Your task to perform on an android device: turn on bluetooth scan Image 0: 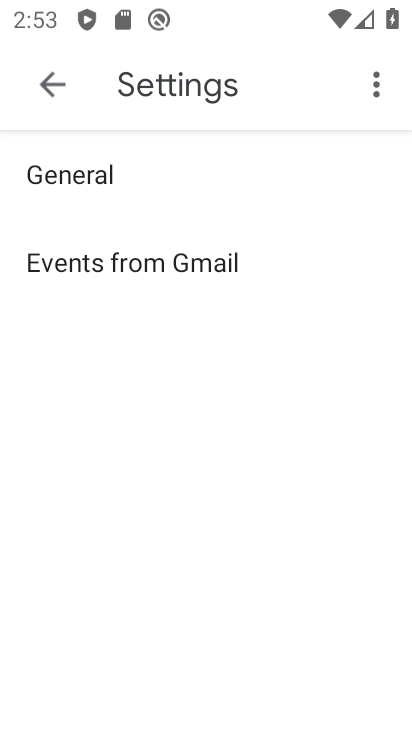
Step 0: press home button
Your task to perform on an android device: turn on bluetooth scan Image 1: 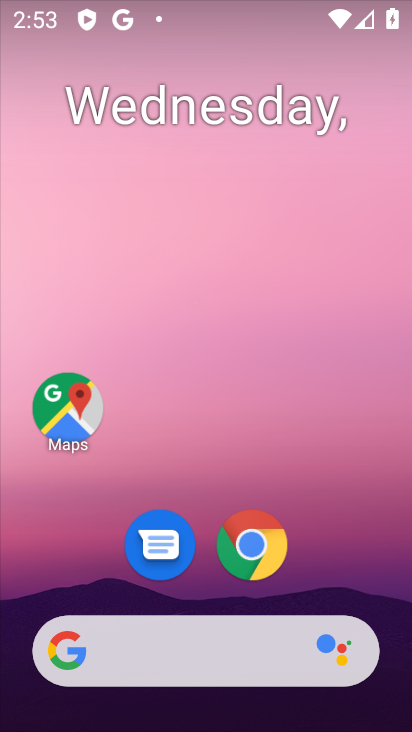
Step 1: drag from (120, 385) to (169, 150)
Your task to perform on an android device: turn on bluetooth scan Image 2: 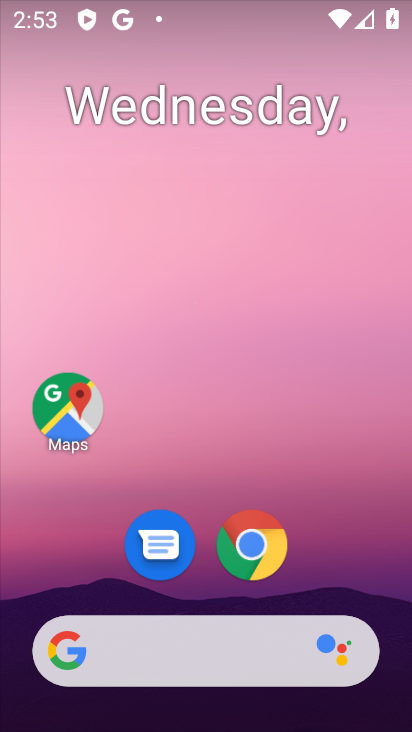
Step 2: drag from (101, 545) to (199, 17)
Your task to perform on an android device: turn on bluetooth scan Image 3: 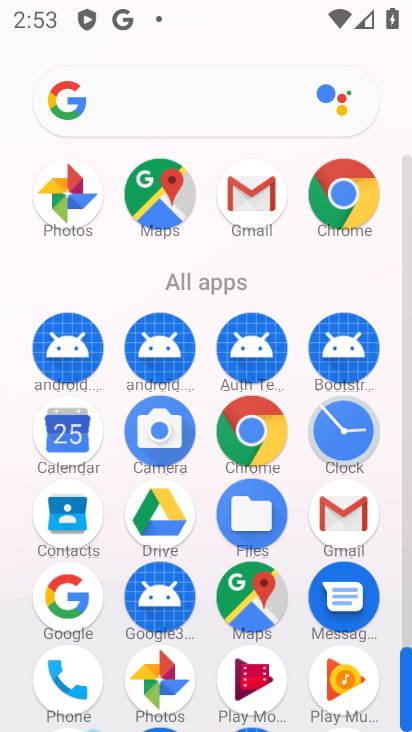
Step 3: drag from (171, 583) to (210, 362)
Your task to perform on an android device: turn on bluetooth scan Image 4: 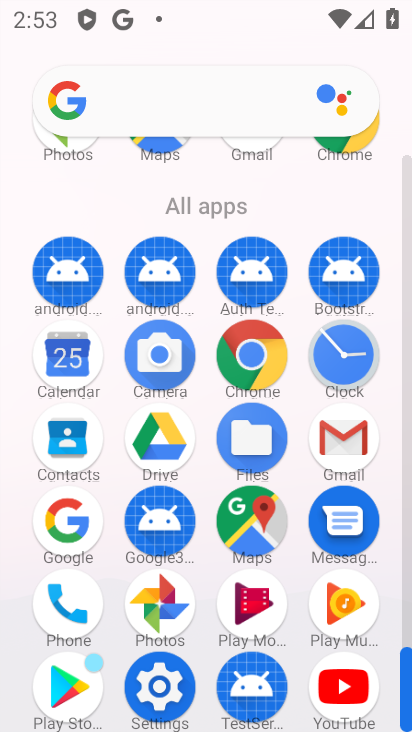
Step 4: click (136, 696)
Your task to perform on an android device: turn on bluetooth scan Image 5: 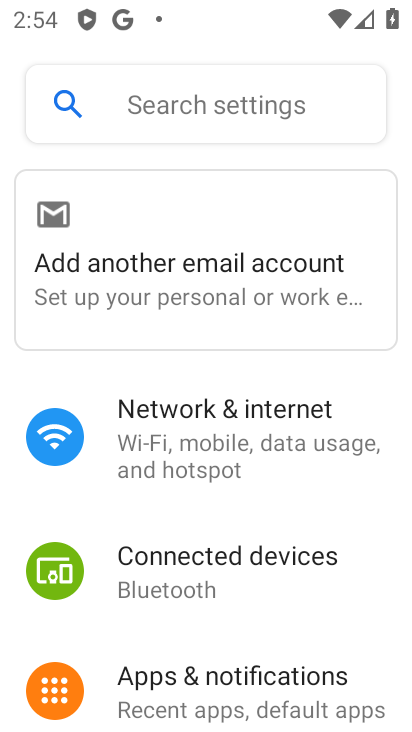
Step 5: click (213, 592)
Your task to perform on an android device: turn on bluetooth scan Image 6: 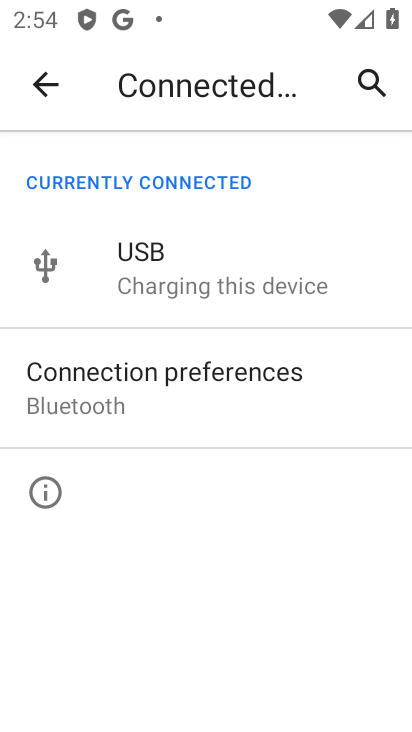
Step 6: click (261, 393)
Your task to perform on an android device: turn on bluetooth scan Image 7: 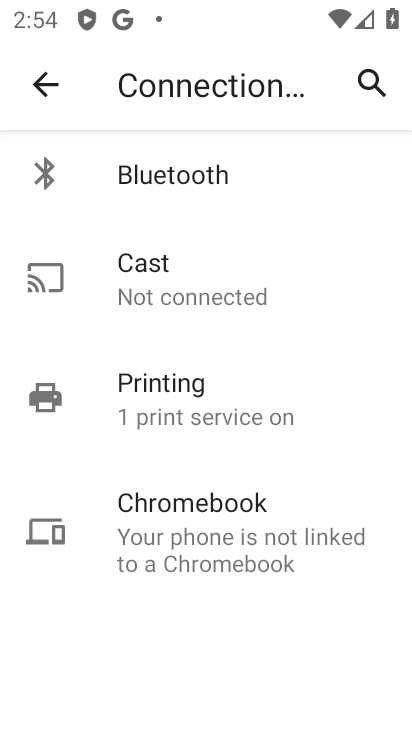
Step 7: click (254, 200)
Your task to perform on an android device: turn on bluetooth scan Image 8: 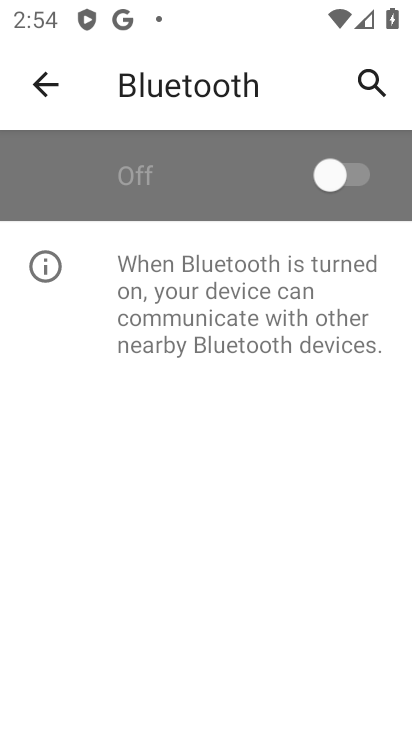
Step 8: task complete